Your task to perform on an android device: all mails in gmail Image 0: 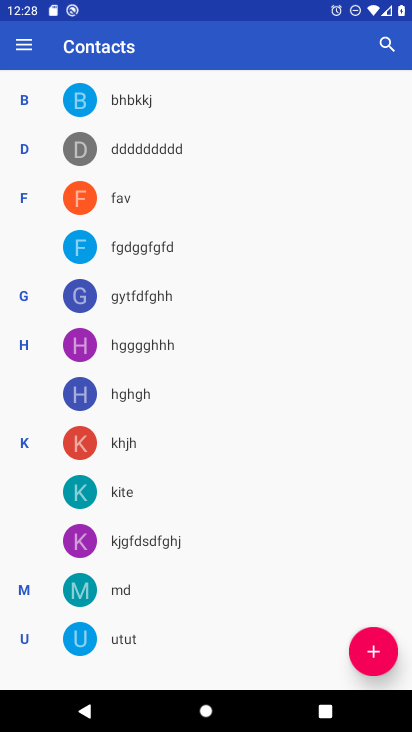
Step 0: press home button
Your task to perform on an android device: all mails in gmail Image 1: 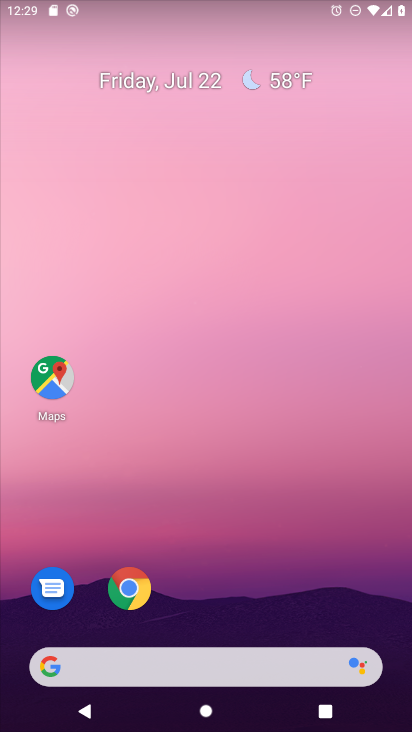
Step 1: drag from (258, 416) to (196, 3)
Your task to perform on an android device: all mails in gmail Image 2: 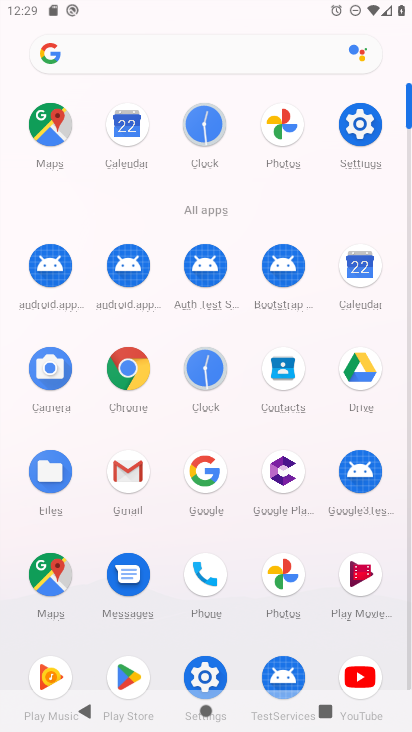
Step 2: click (115, 481)
Your task to perform on an android device: all mails in gmail Image 3: 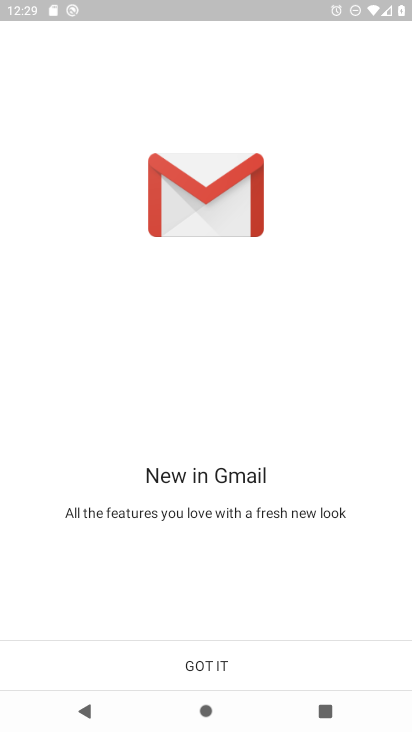
Step 3: click (266, 667)
Your task to perform on an android device: all mails in gmail Image 4: 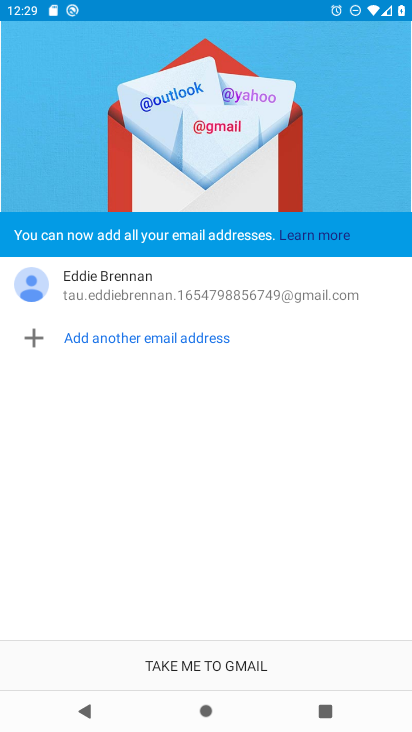
Step 4: click (271, 673)
Your task to perform on an android device: all mails in gmail Image 5: 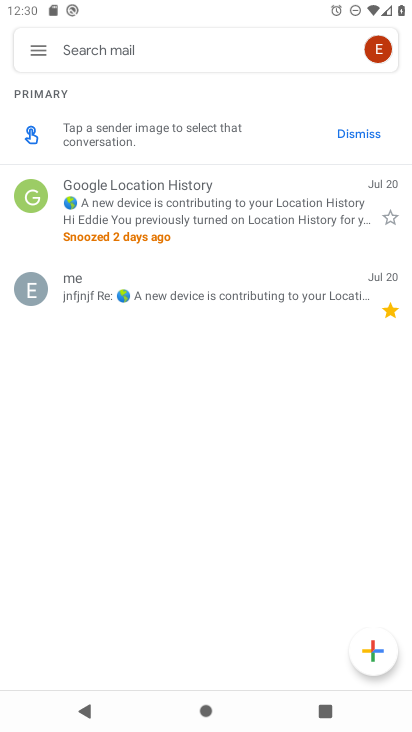
Step 5: click (34, 48)
Your task to perform on an android device: all mails in gmail Image 6: 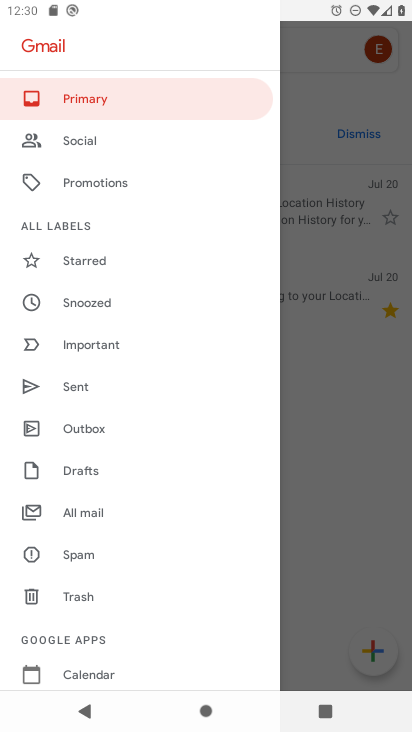
Step 6: click (113, 516)
Your task to perform on an android device: all mails in gmail Image 7: 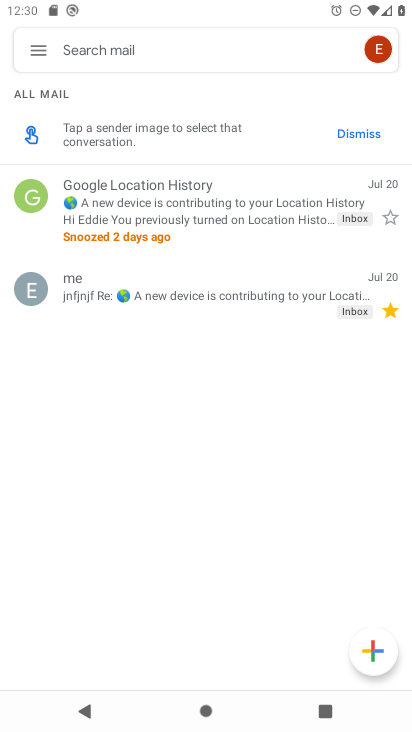
Step 7: task complete